Your task to perform on an android device: Go to CNN.com Image 0: 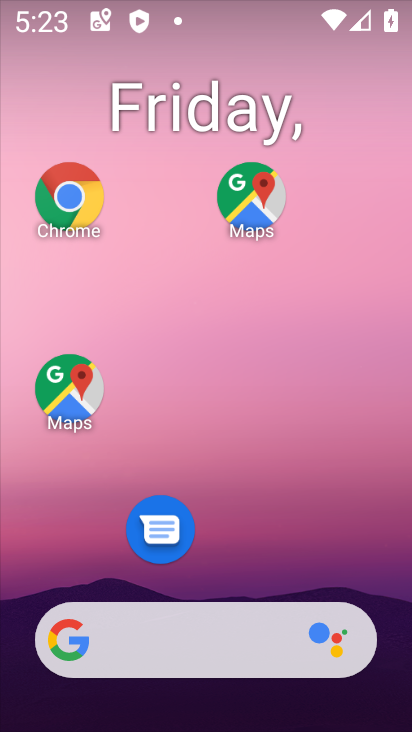
Step 0: click (78, 212)
Your task to perform on an android device: Go to CNN.com Image 1: 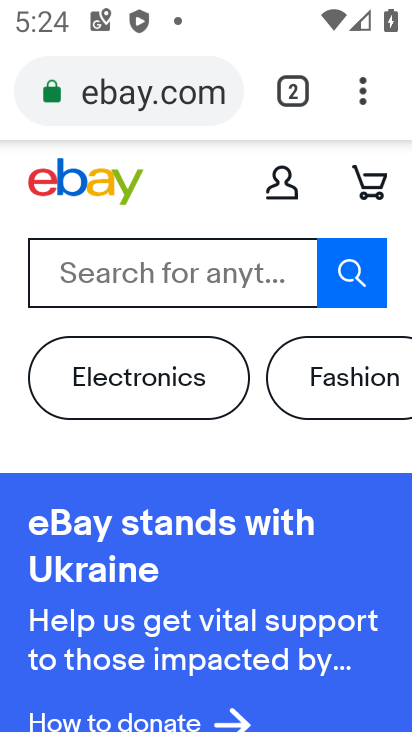
Step 1: click (150, 94)
Your task to perform on an android device: Go to CNN.com Image 2: 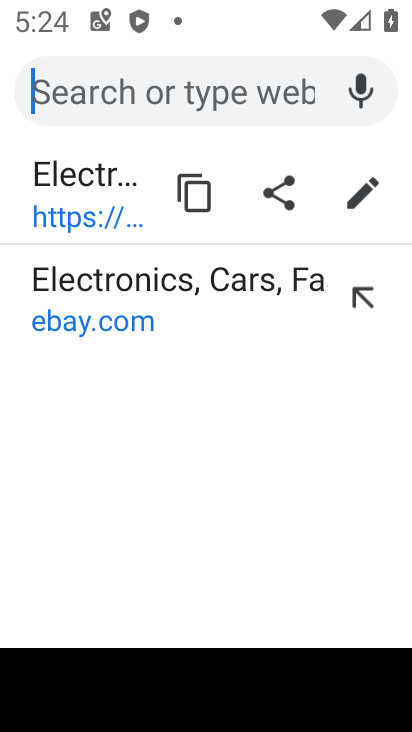
Step 2: type "www.cnn.com"
Your task to perform on an android device: Go to CNN.com Image 3: 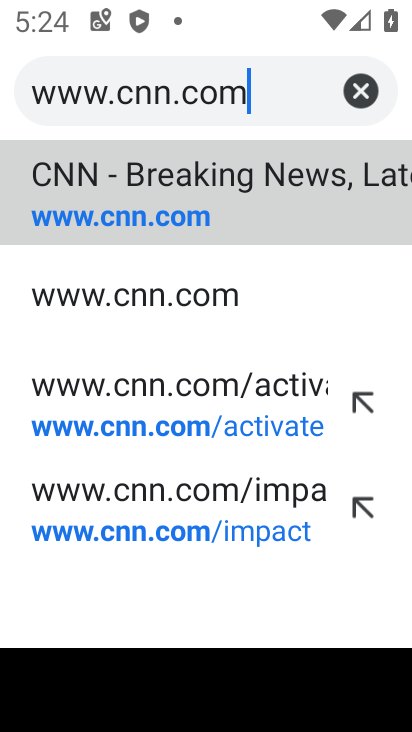
Step 3: click (168, 212)
Your task to perform on an android device: Go to CNN.com Image 4: 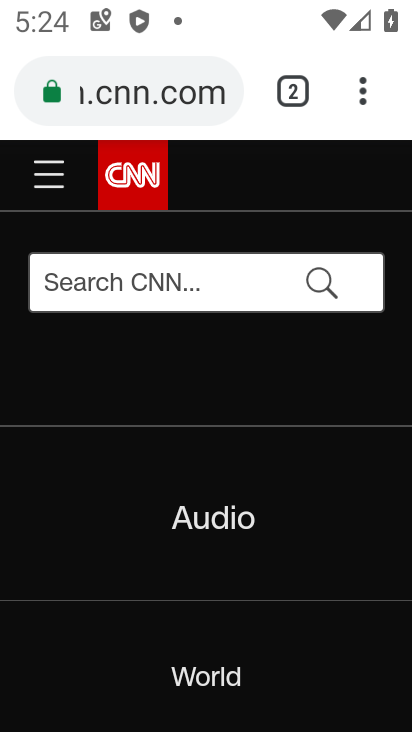
Step 4: task complete